Your task to perform on an android device: move a message to another label in the gmail app Image 0: 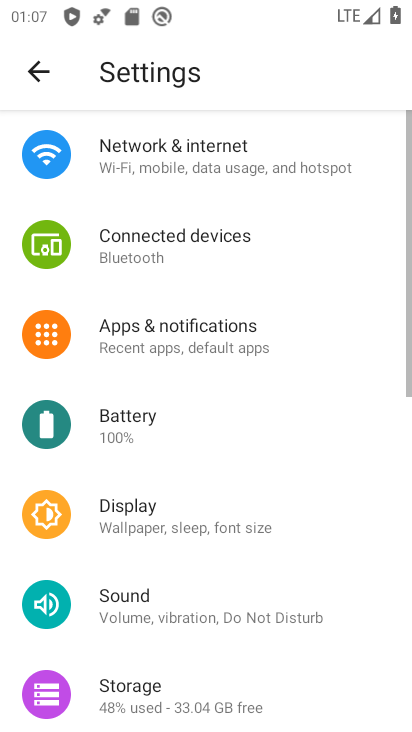
Step 0: press home button
Your task to perform on an android device: move a message to another label in the gmail app Image 1: 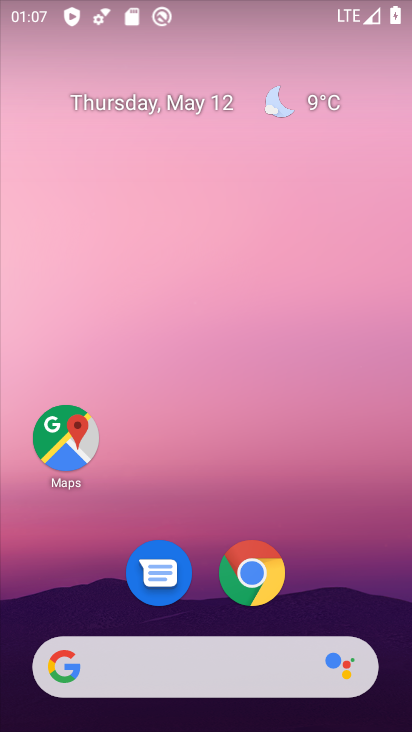
Step 1: drag from (364, 597) to (398, 16)
Your task to perform on an android device: move a message to another label in the gmail app Image 2: 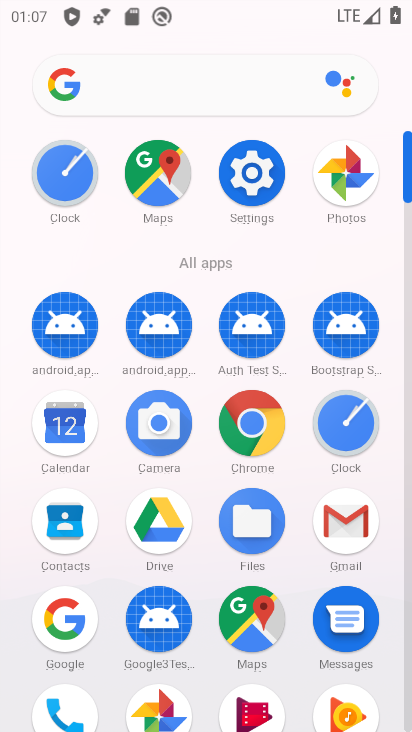
Step 2: click (347, 511)
Your task to perform on an android device: move a message to another label in the gmail app Image 3: 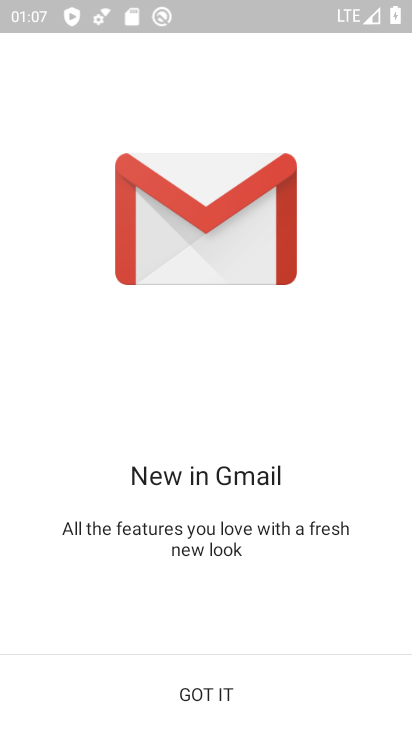
Step 3: click (190, 676)
Your task to perform on an android device: move a message to another label in the gmail app Image 4: 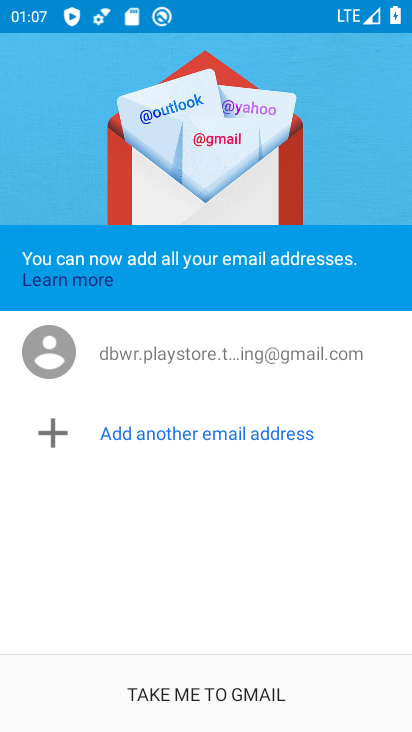
Step 4: click (186, 678)
Your task to perform on an android device: move a message to another label in the gmail app Image 5: 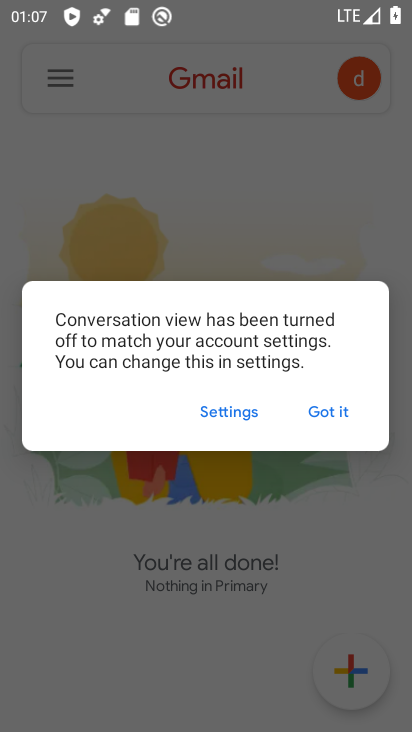
Step 5: click (348, 415)
Your task to perform on an android device: move a message to another label in the gmail app Image 6: 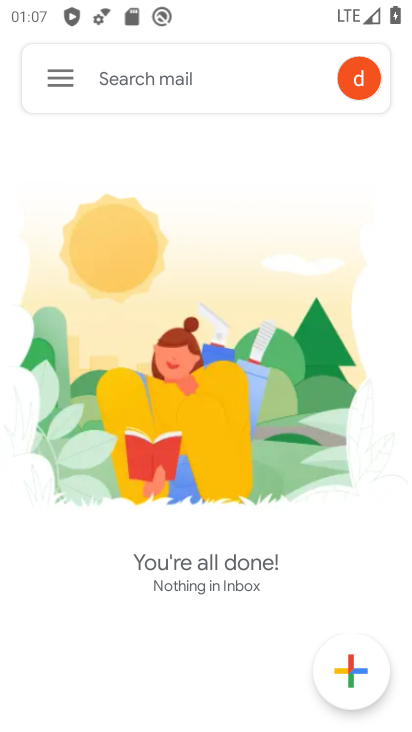
Step 6: click (67, 101)
Your task to perform on an android device: move a message to another label in the gmail app Image 7: 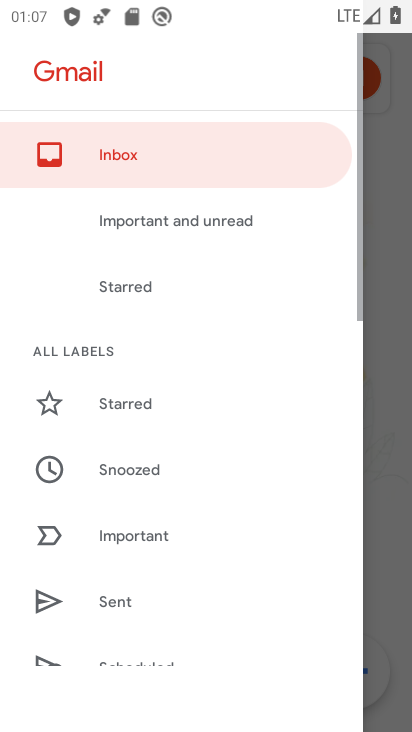
Step 7: drag from (122, 600) to (139, 321)
Your task to perform on an android device: move a message to another label in the gmail app Image 8: 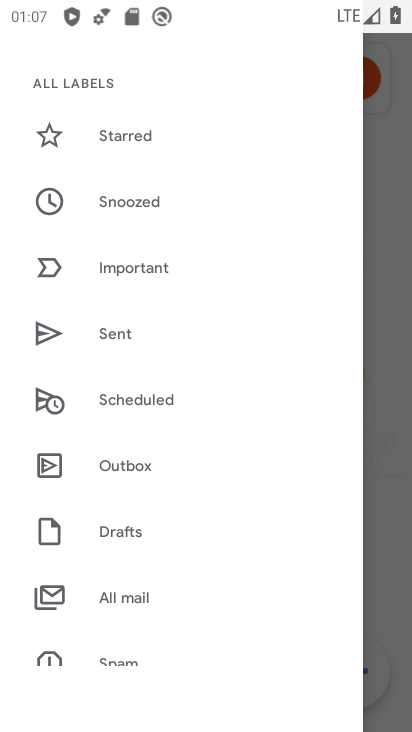
Step 8: click (104, 583)
Your task to perform on an android device: move a message to another label in the gmail app Image 9: 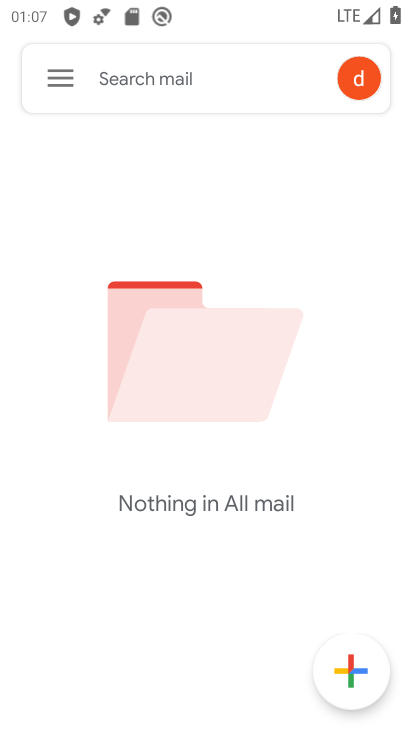
Step 9: task complete